Your task to perform on an android device: Open the stopwatch Image 0: 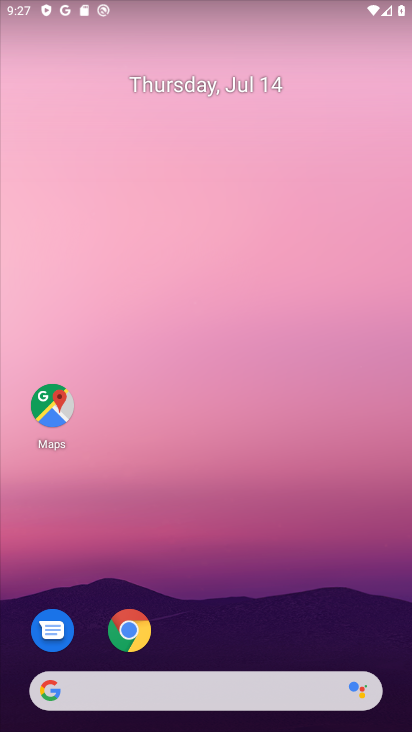
Step 0: drag from (32, 703) to (182, 109)
Your task to perform on an android device: Open the stopwatch Image 1: 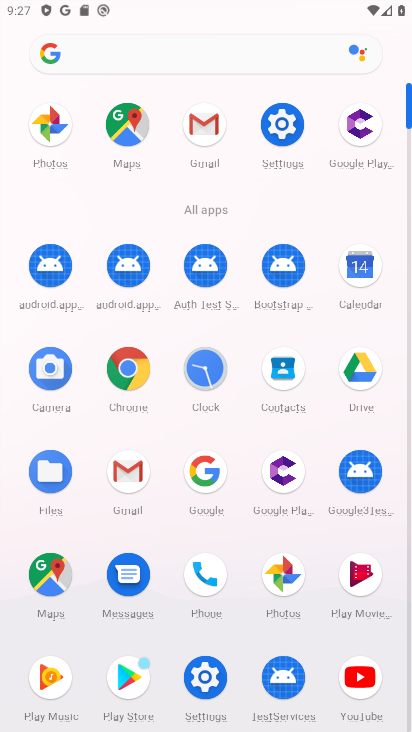
Step 1: click (209, 366)
Your task to perform on an android device: Open the stopwatch Image 2: 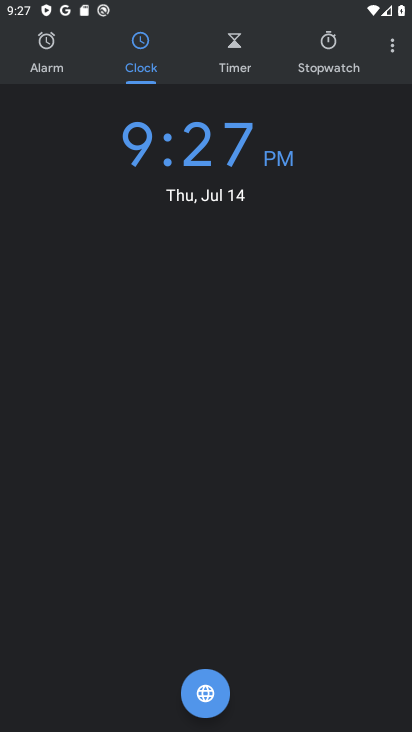
Step 2: click (350, 66)
Your task to perform on an android device: Open the stopwatch Image 3: 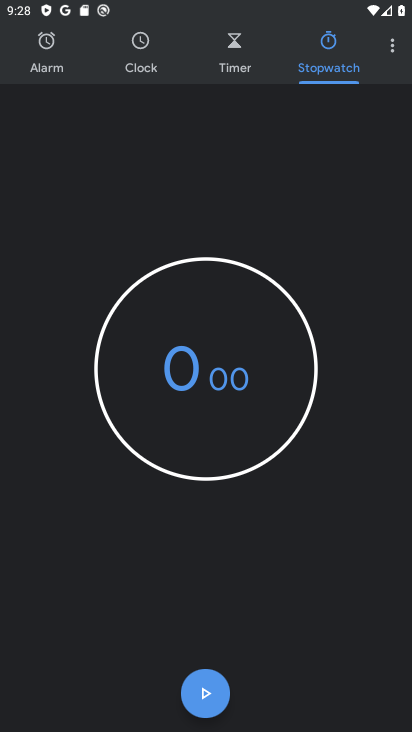
Step 3: click (196, 678)
Your task to perform on an android device: Open the stopwatch Image 4: 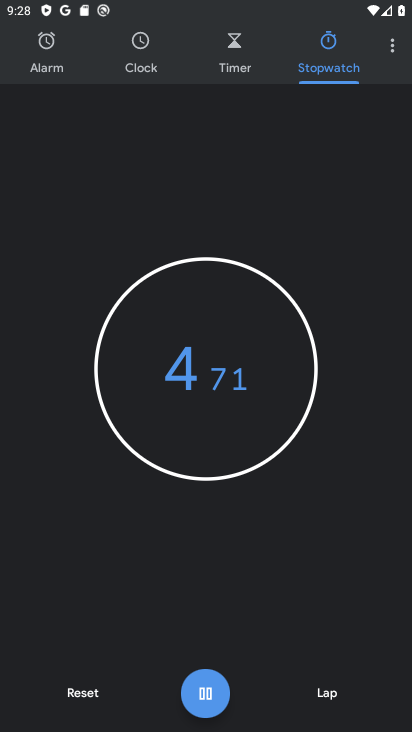
Step 4: task complete